Your task to perform on an android device: toggle data saver in the chrome app Image 0: 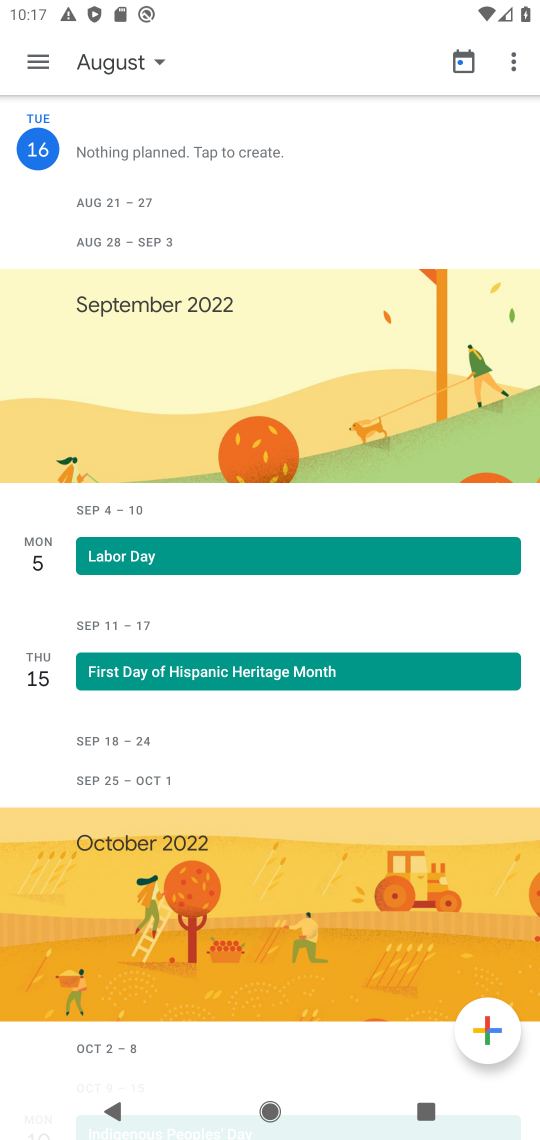
Step 0: press home button
Your task to perform on an android device: toggle data saver in the chrome app Image 1: 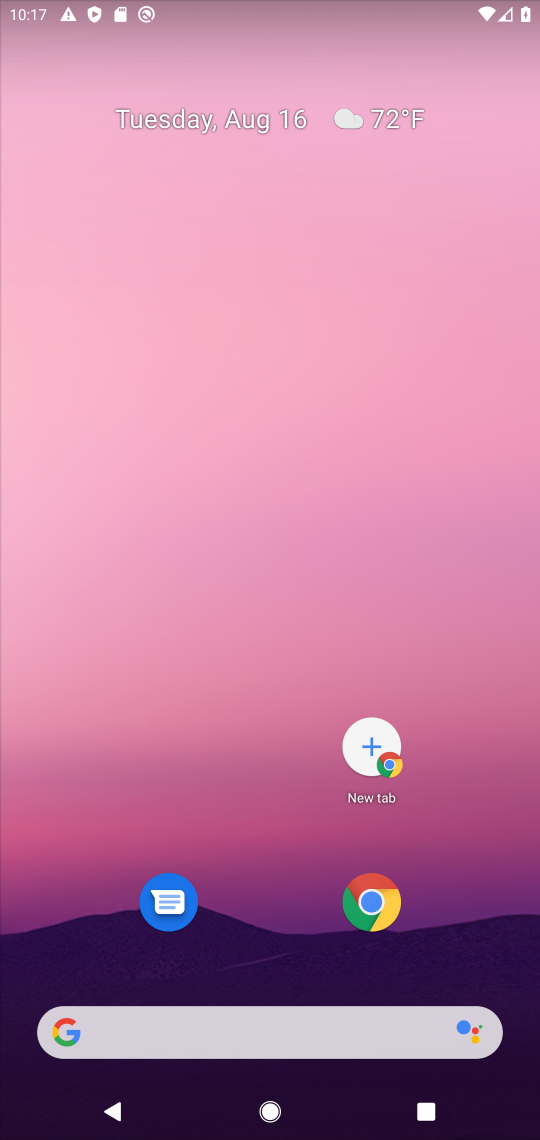
Step 1: click (360, 915)
Your task to perform on an android device: toggle data saver in the chrome app Image 2: 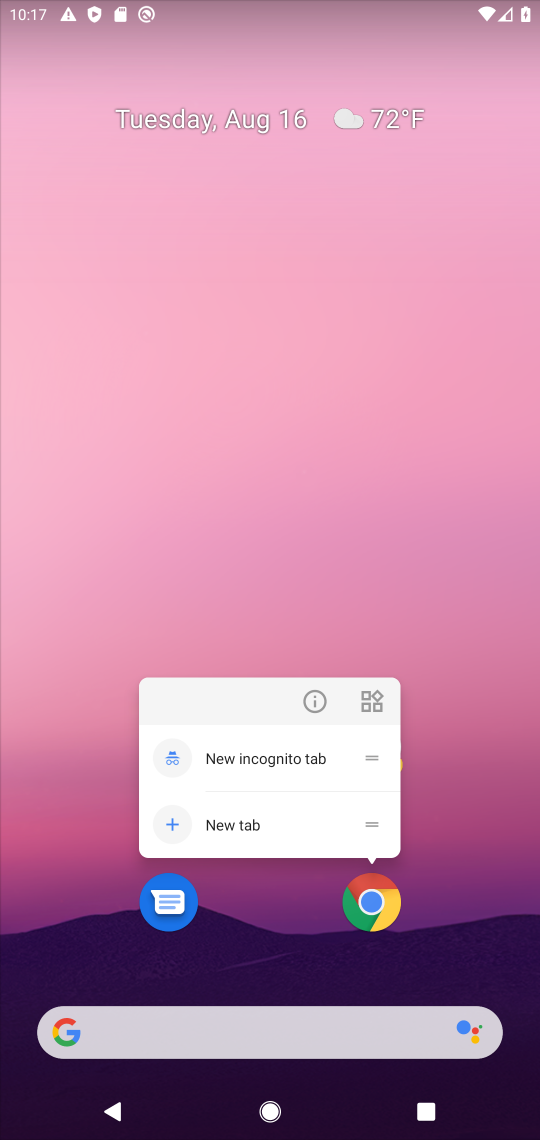
Step 2: click (376, 913)
Your task to perform on an android device: toggle data saver in the chrome app Image 3: 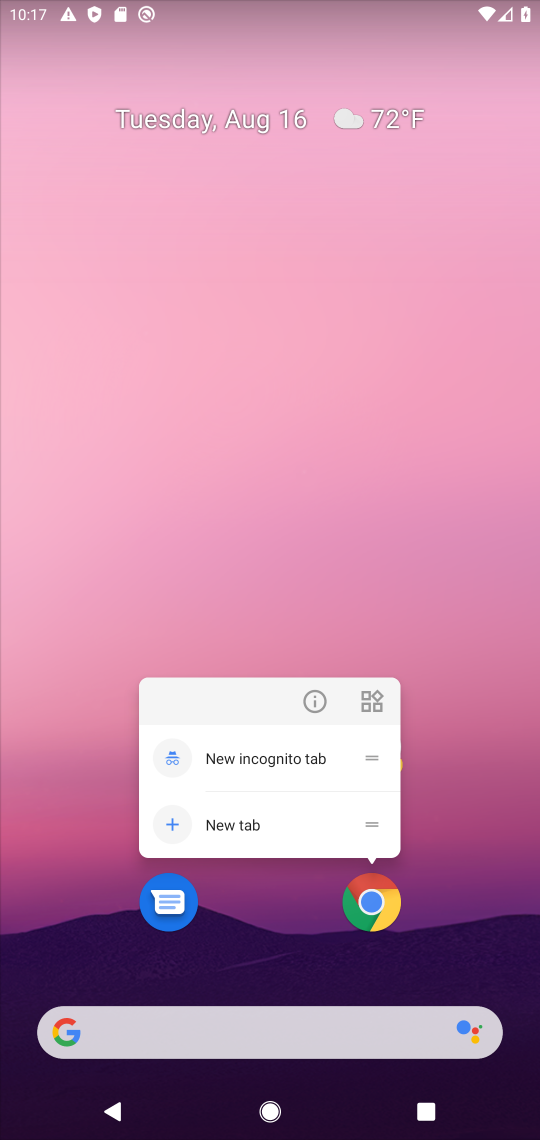
Step 3: click (376, 913)
Your task to perform on an android device: toggle data saver in the chrome app Image 4: 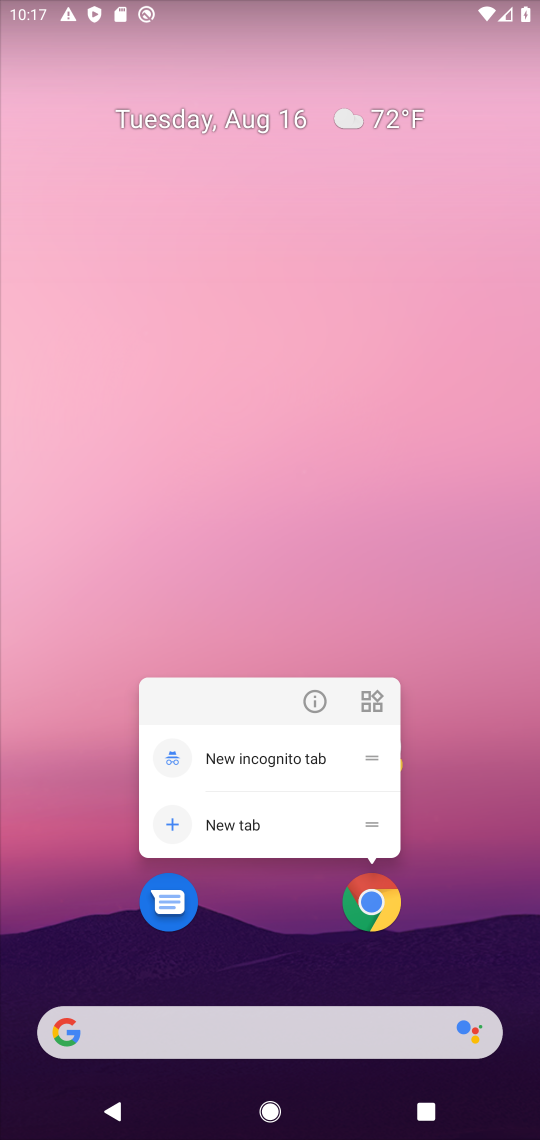
Step 4: click (376, 913)
Your task to perform on an android device: toggle data saver in the chrome app Image 5: 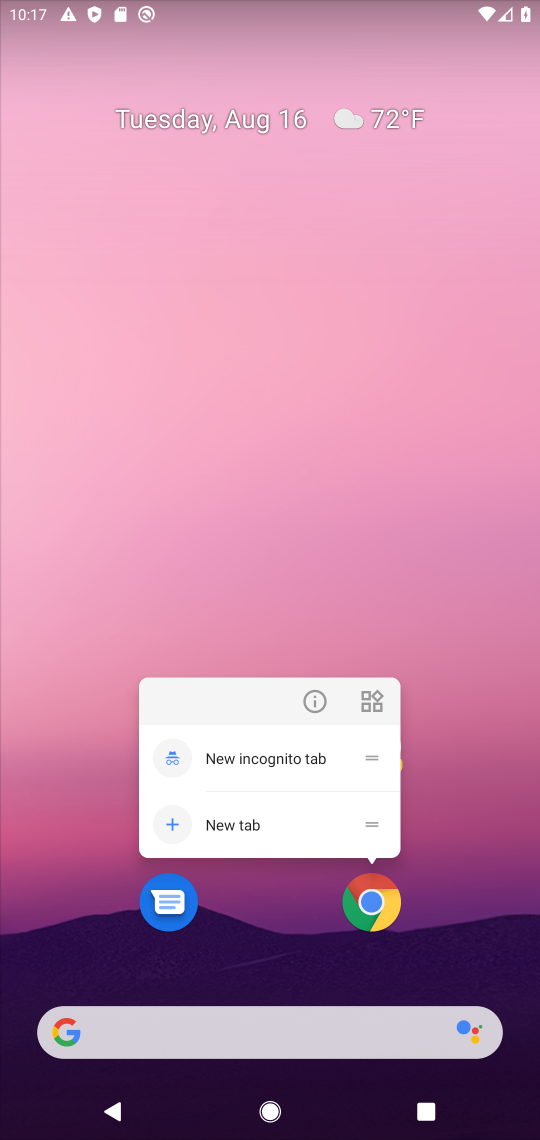
Step 5: click (378, 925)
Your task to perform on an android device: toggle data saver in the chrome app Image 6: 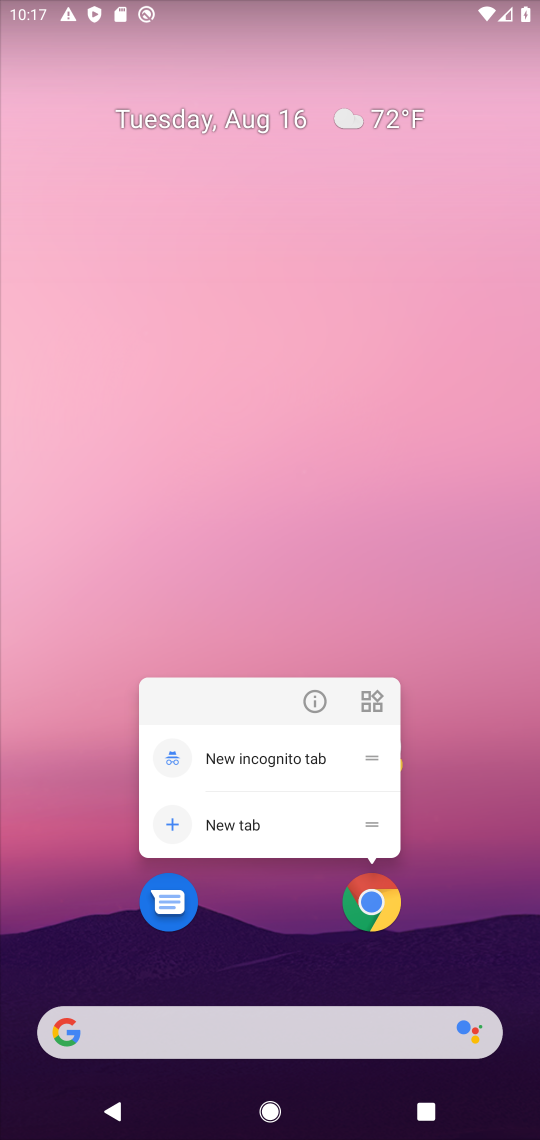
Step 6: click (372, 907)
Your task to perform on an android device: toggle data saver in the chrome app Image 7: 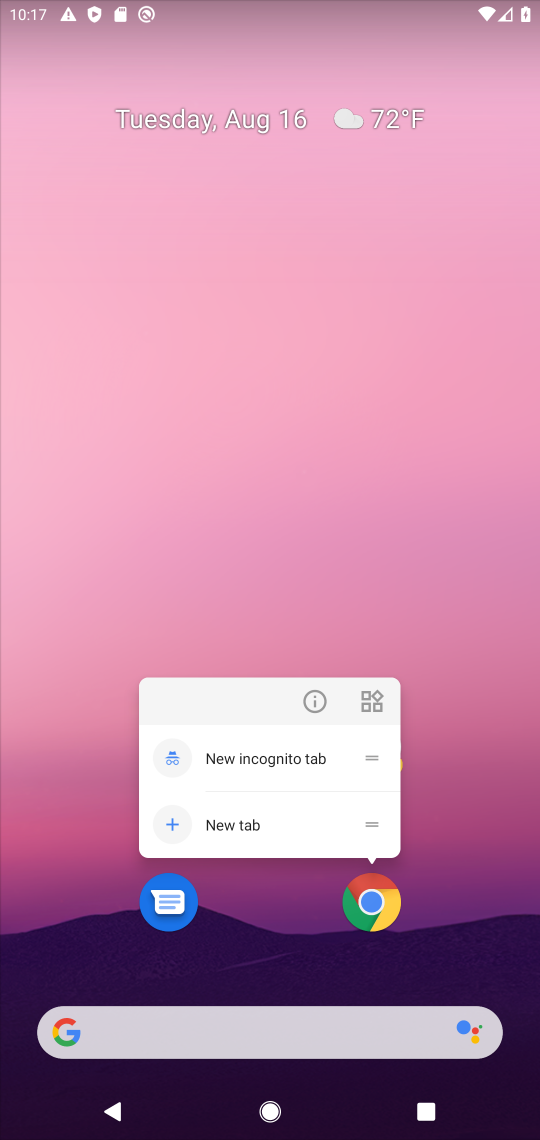
Step 7: click (374, 902)
Your task to perform on an android device: toggle data saver in the chrome app Image 8: 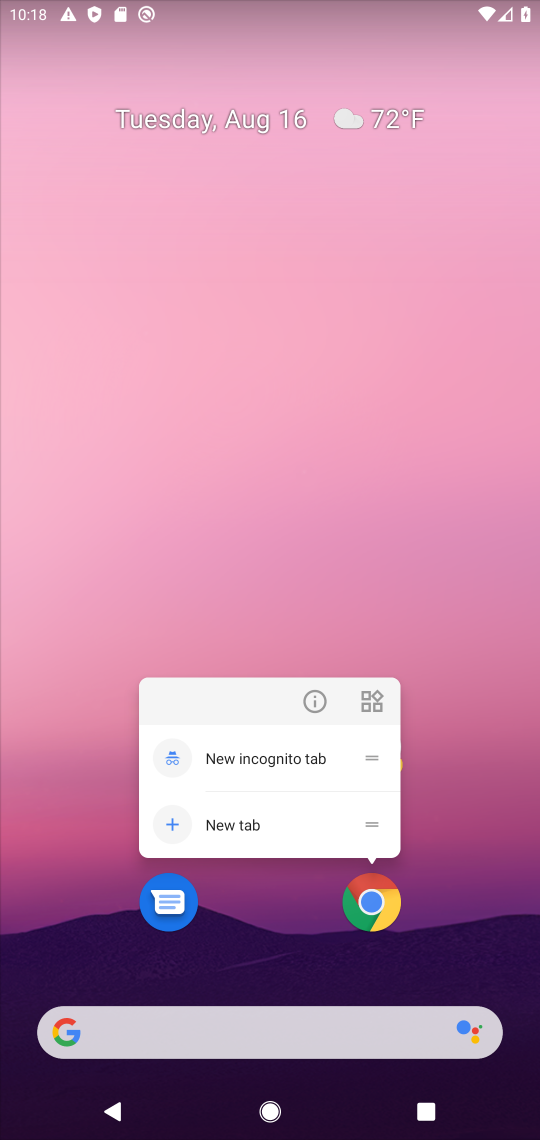
Step 8: click (374, 902)
Your task to perform on an android device: toggle data saver in the chrome app Image 9: 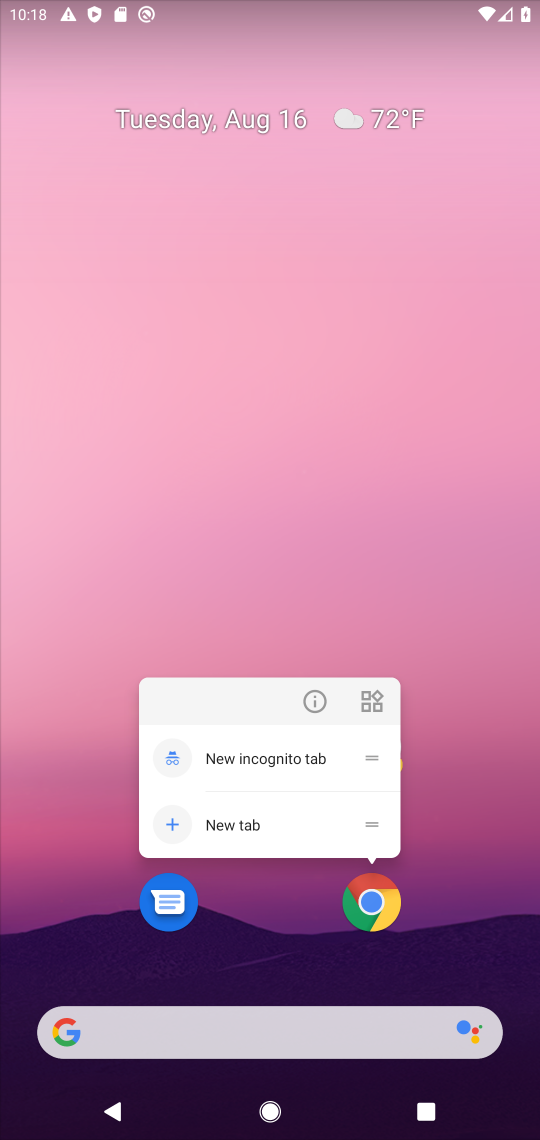
Step 9: click (370, 910)
Your task to perform on an android device: toggle data saver in the chrome app Image 10: 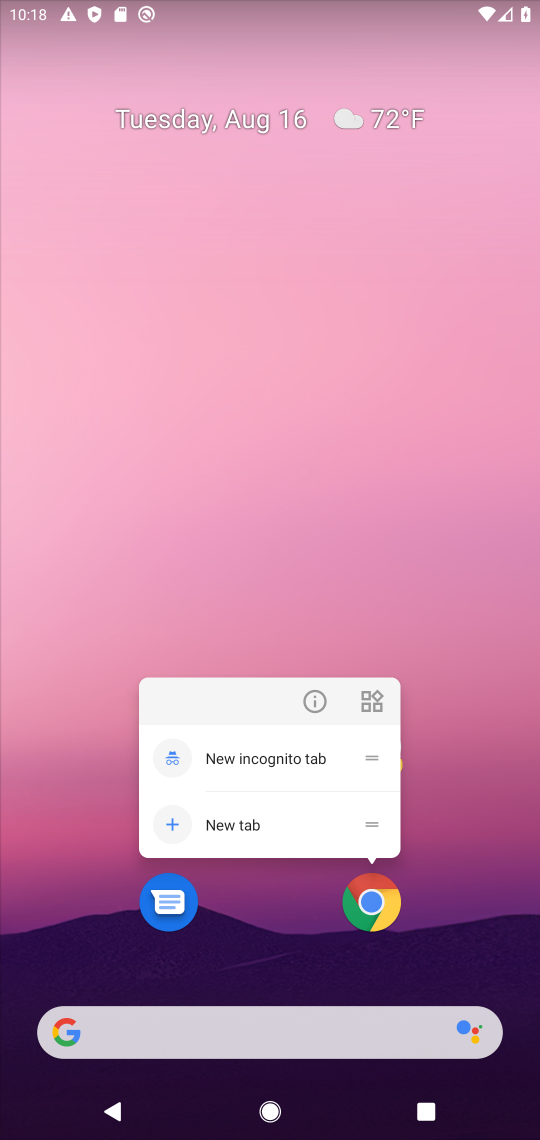
Step 10: click (370, 910)
Your task to perform on an android device: toggle data saver in the chrome app Image 11: 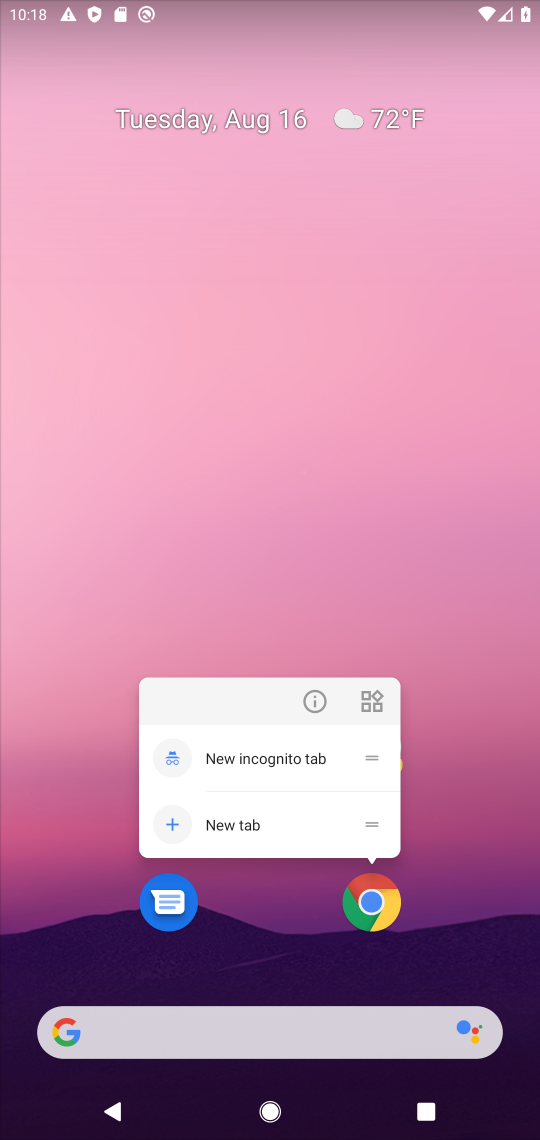
Step 11: click (370, 910)
Your task to perform on an android device: toggle data saver in the chrome app Image 12: 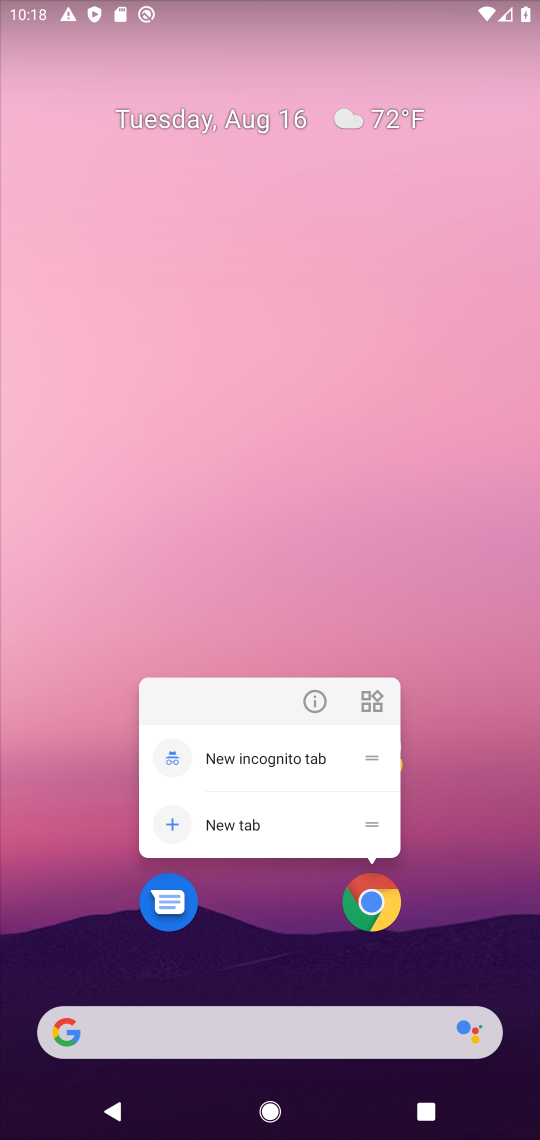
Step 12: click (370, 910)
Your task to perform on an android device: toggle data saver in the chrome app Image 13: 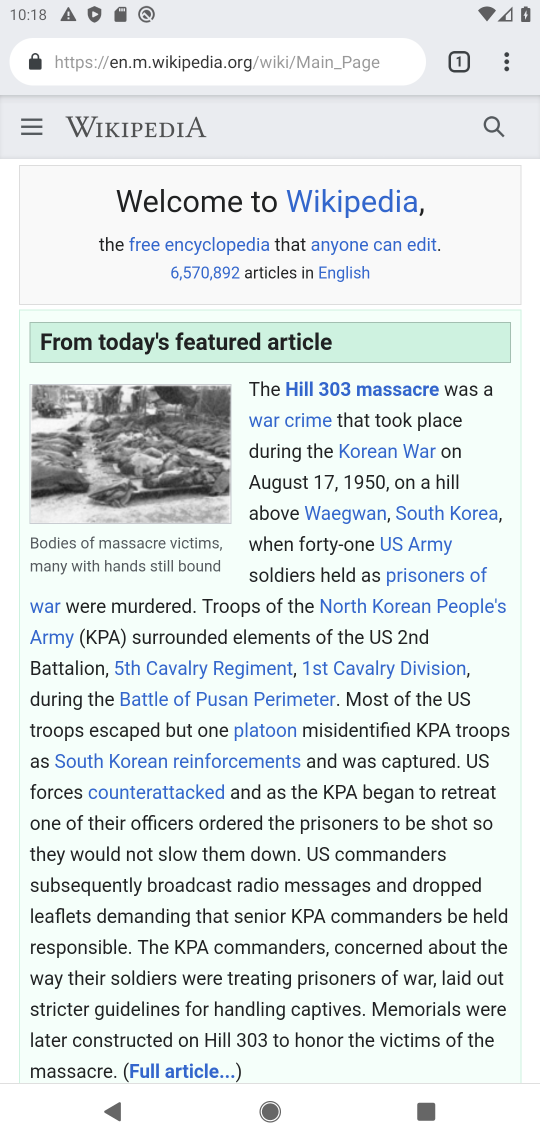
Step 13: click (500, 60)
Your task to perform on an android device: toggle data saver in the chrome app Image 14: 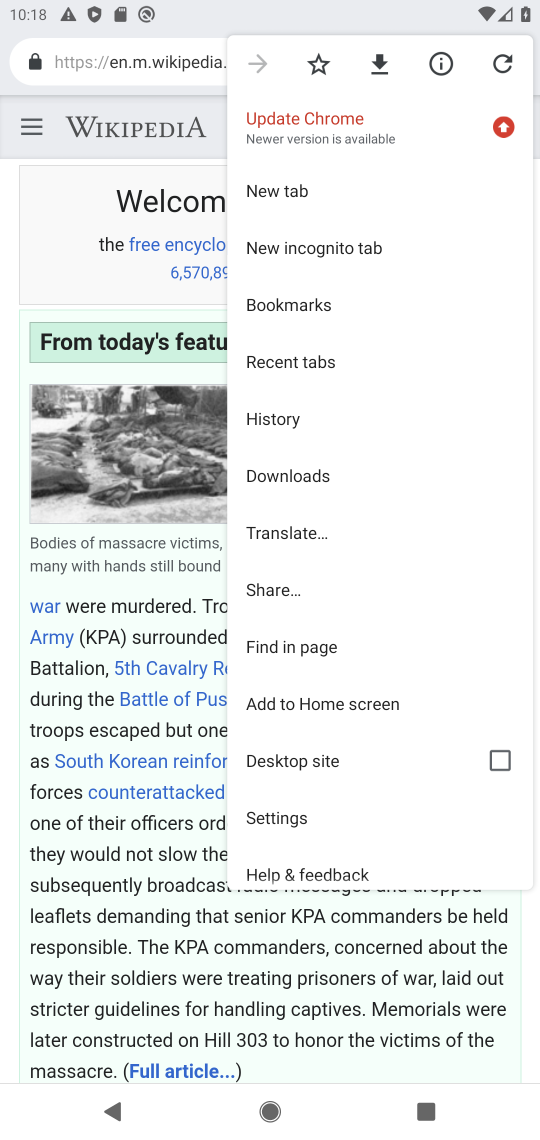
Step 14: click (253, 828)
Your task to perform on an android device: toggle data saver in the chrome app Image 15: 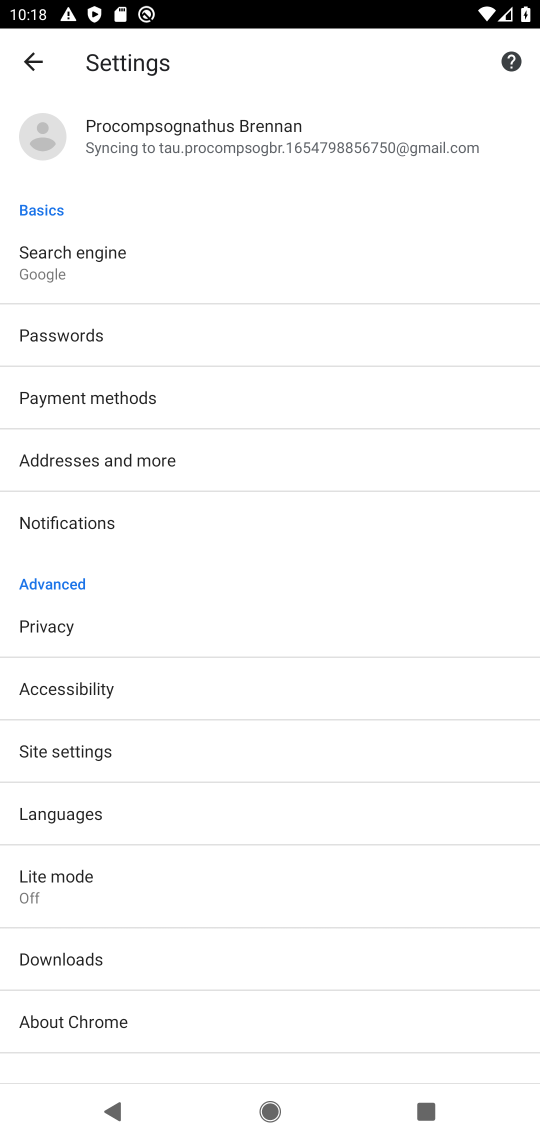
Step 15: click (44, 903)
Your task to perform on an android device: toggle data saver in the chrome app Image 16: 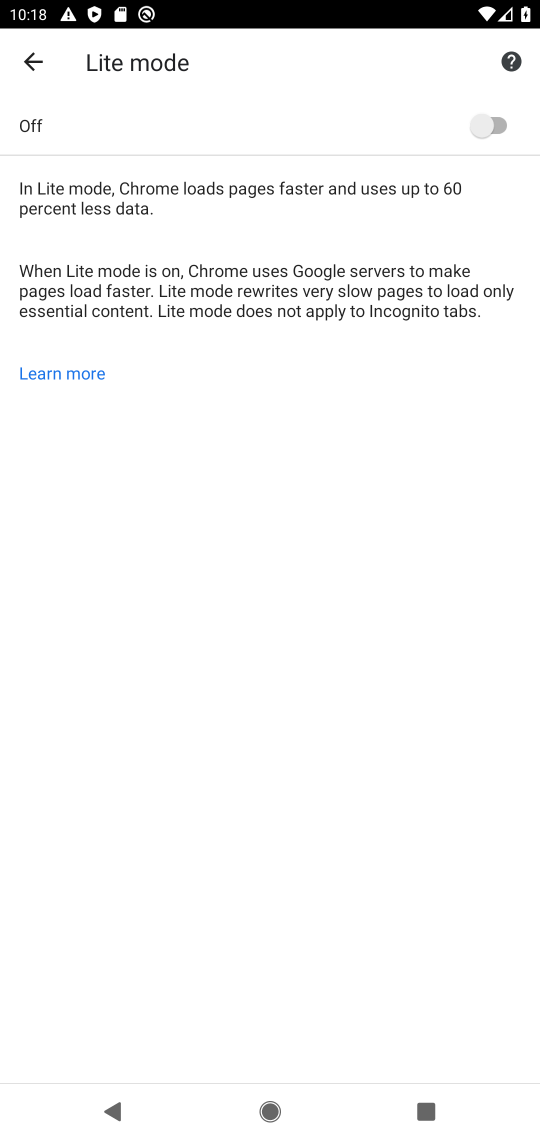
Step 16: click (497, 123)
Your task to perform on an android device: toggle data saver in the chrome app Image 17: 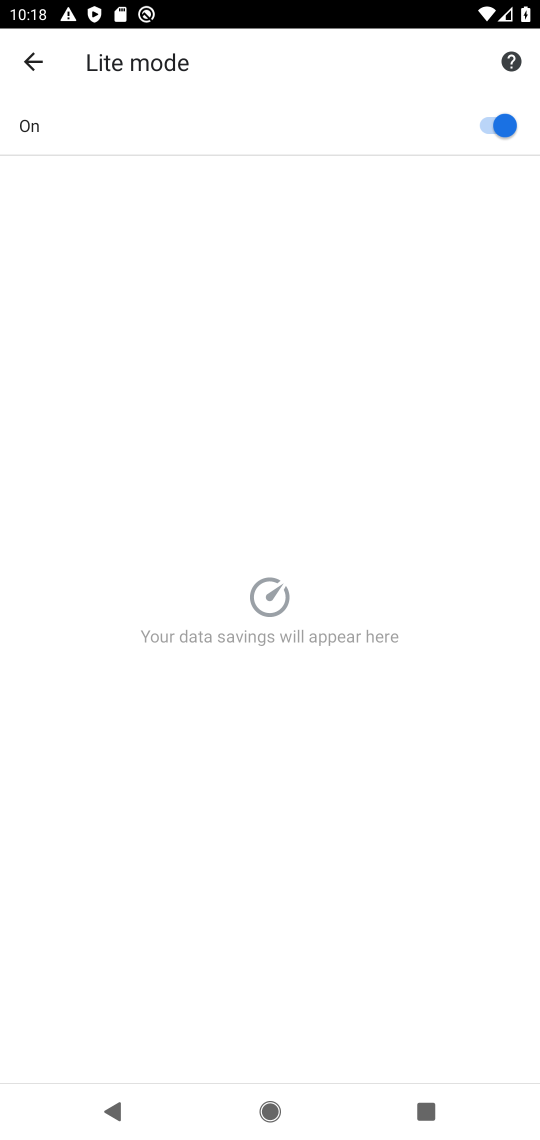
Step 17: task complete